Your task to perform on an android device: make emails show in primary in the gmail app Image 0: 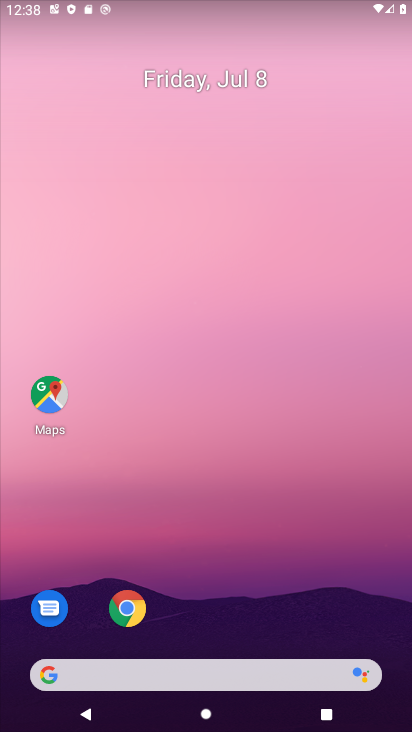
Step 0: drag from (250, 627) to (214, 181)
Your task to perform on an android device: make emails show in primary in the gmail app Image 1: 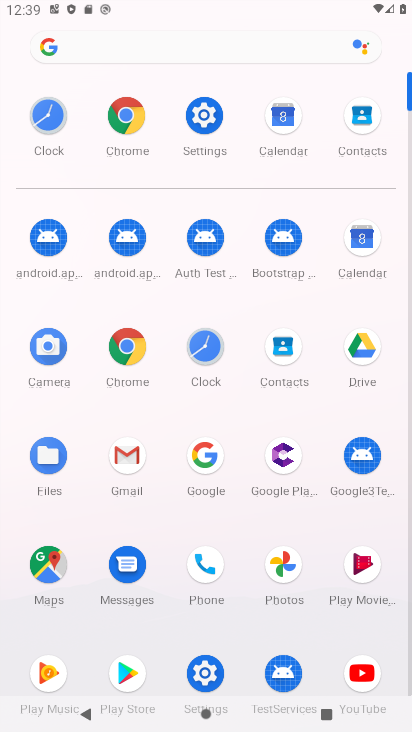
Step 1: click (136, 470)
Your task to perform on an android device: make emails show in primary in the gmail app Image 2: 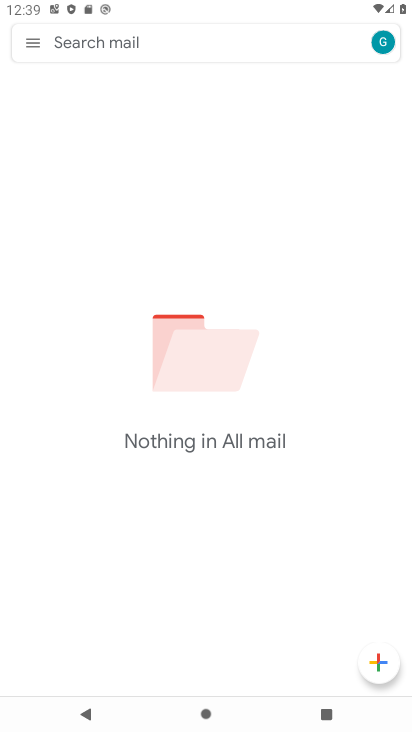
Step 2: click (42, 48)
Your task to perform on an android device: make emails show in primary in the gmail app Image 3: 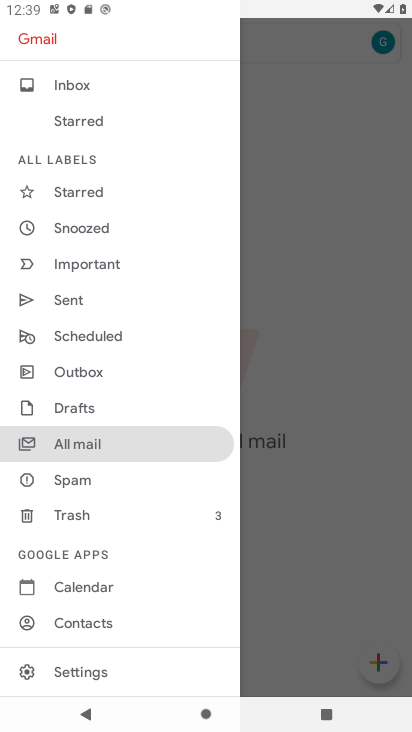
Step 3: click (111, 667)
Your task to perform on an android device: make emails show in primary in the gmail app Image 4: 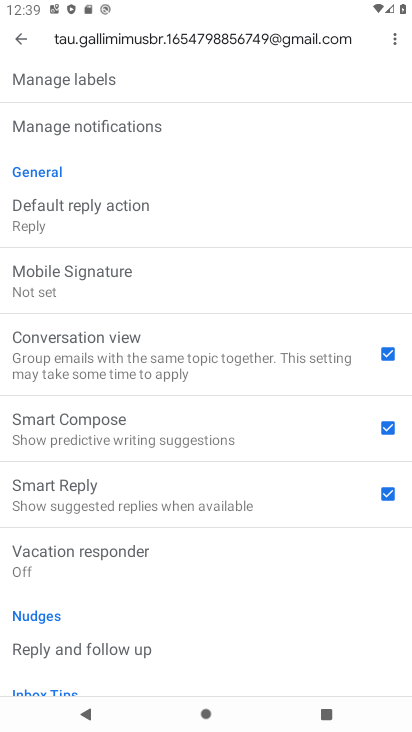
Step 4: drag from (165, 538) to (147, 303)
Your task to perform on an android device: make emails show in primary in the gmail app Image 5: 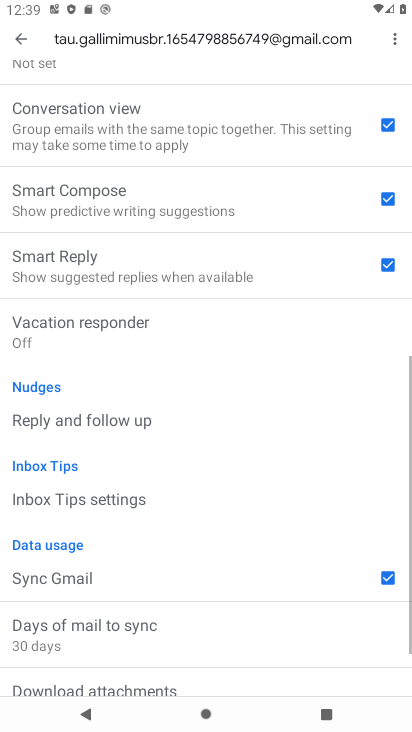
Step 5: click (147, 303)
Your task to perform on an android device: make emails show in primary in the gmail app Image 6: 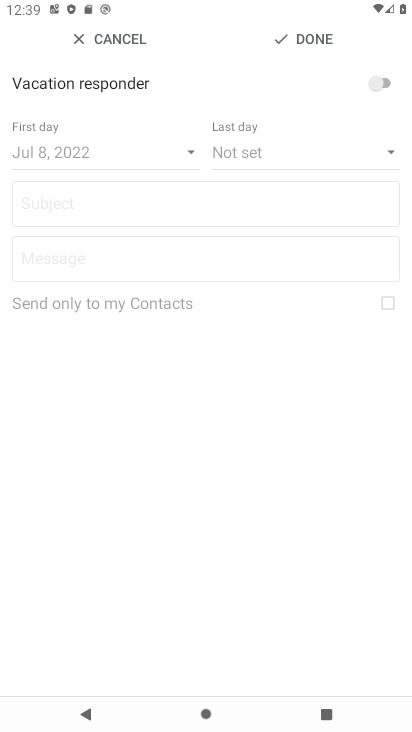
Step 6: click (81, 47)
Your task to perform on an android device: make emails show in primary in the gmail app Image 7: 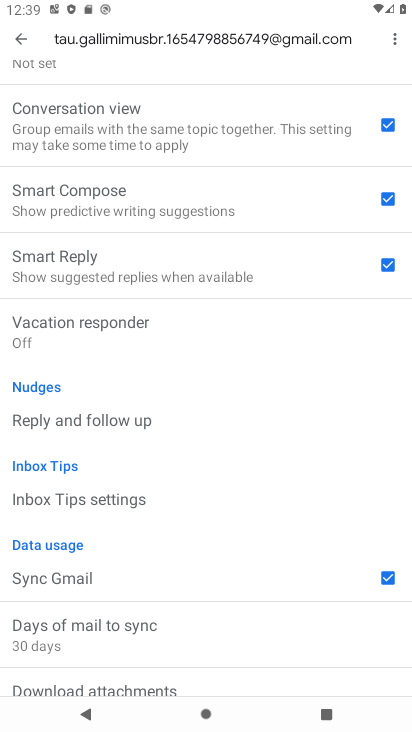
Step 7: drag from (132, 447) to (143, 183)
Your task to perform on an android device: make emails show in primary in the gmail app Image 8: 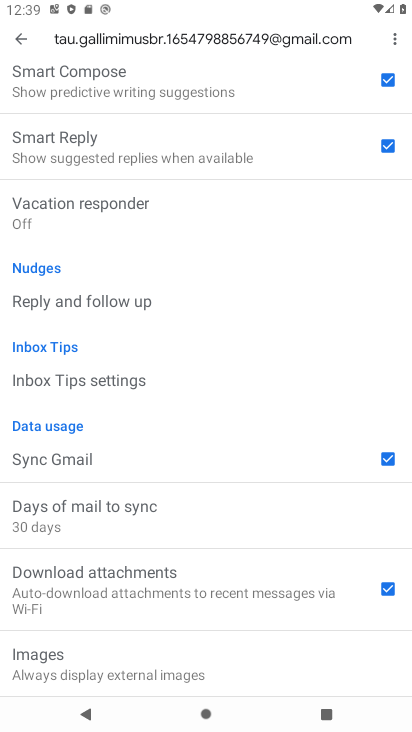
Step 8: click (141, 525)
Your task to perform on an android device: make emails show in primary in the gmail app Image 9: 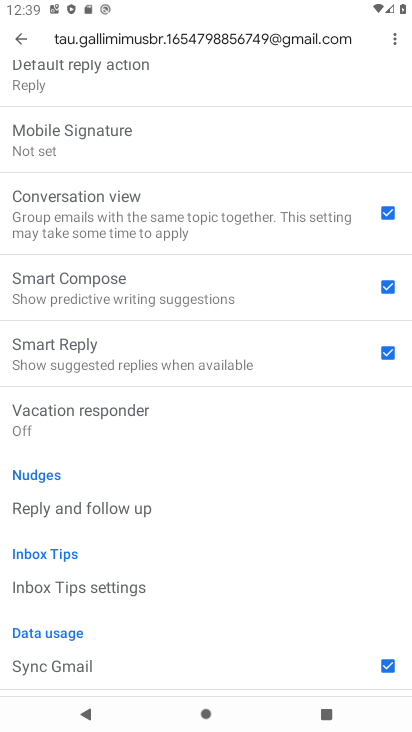
Step 9: drag from (179, 180) to (204, 449)
Your task to perform on an android device: make emails show in primary in the gmail app Image 10: 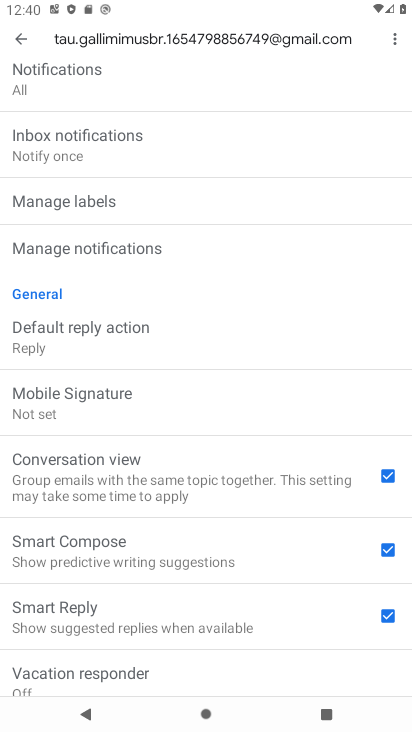
Step 10: click (158, 163)
Your task to perform on an android device: make emails show in primary in the gmail app Image 11: 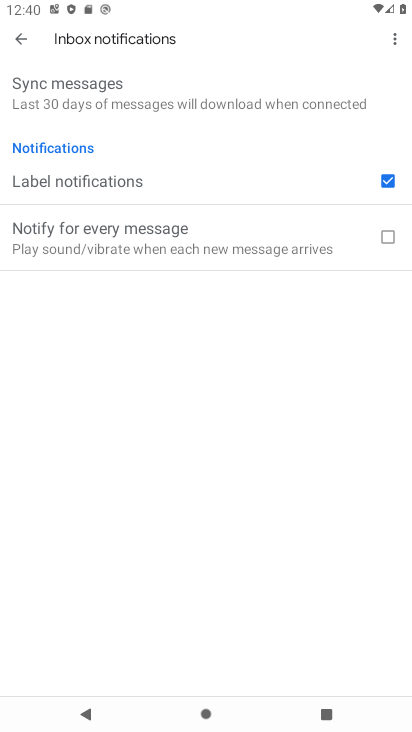
Step 11: task complete